Your task to perform on an android device: move an email to a new category in the gmail app Image 0: 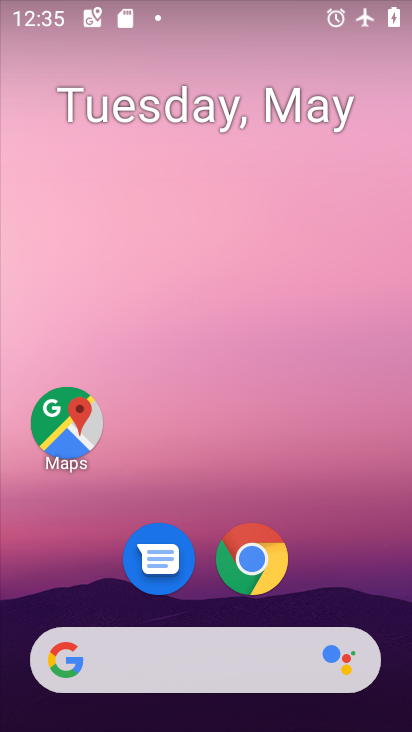
Step 0: drag from (346, 598) to (265, 133)
Your task to perform on an android device: move an email to a new category in the gmail app Image 1: 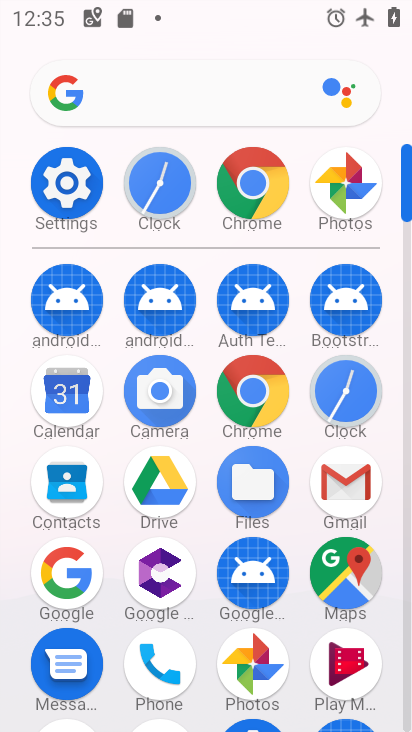
Step 1: click (355, 490)
Your task to perform on an android device: move an email to a new category in the gmail app Image 2: 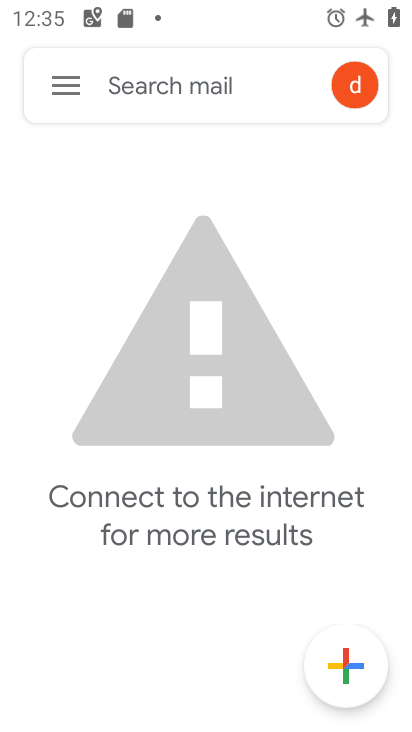
Step 2: click (52, 96)
Your task to perform on an android device: move an email to a new category in the gmail app Image 3: 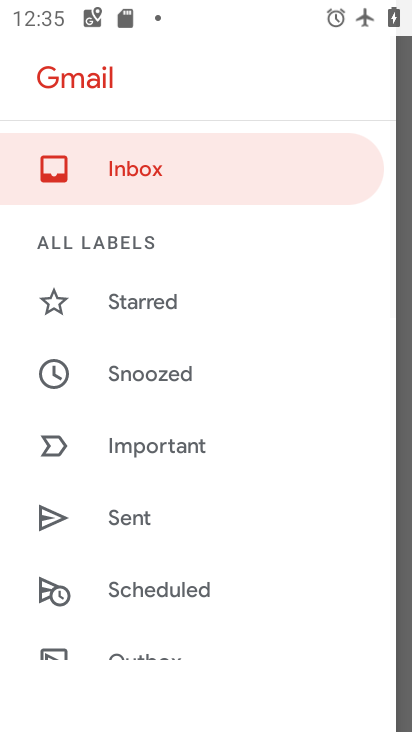
Step 3: click (121, 197)
Your task to perform on an android device: move an email to a new category in the gmail app Image 4: 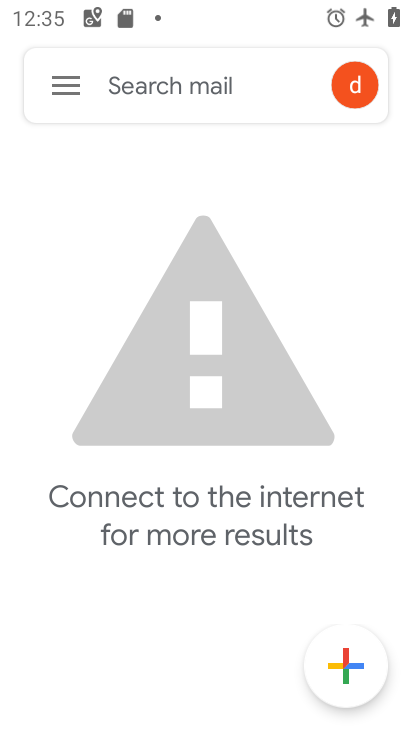
Step 4: task complete